Your task to perform on an android device: Do I have any events today? Image 0: 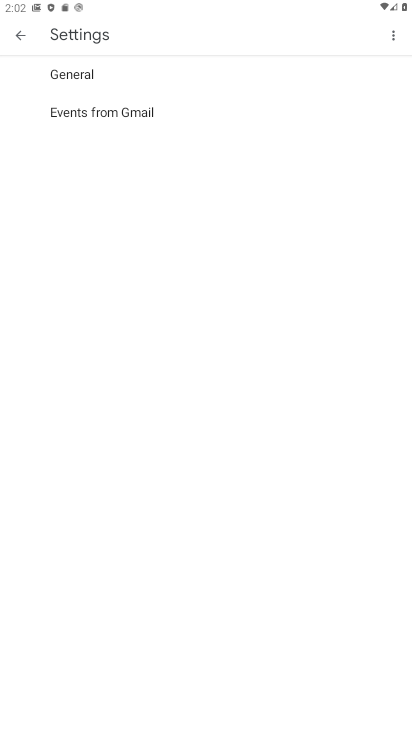
Step 0: press home button
Your task to perform on an android device: Do I have any events today? Image 1: 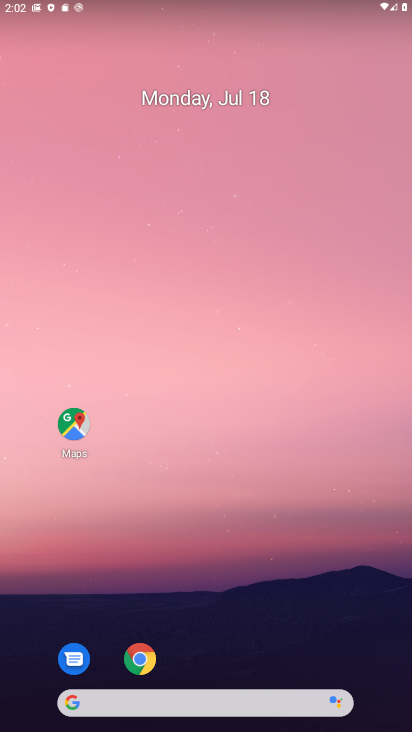
Step 1: drag from (194, 706) to (226, 183)
Your task to perform on an android device: Do I have any events today? Image 2: 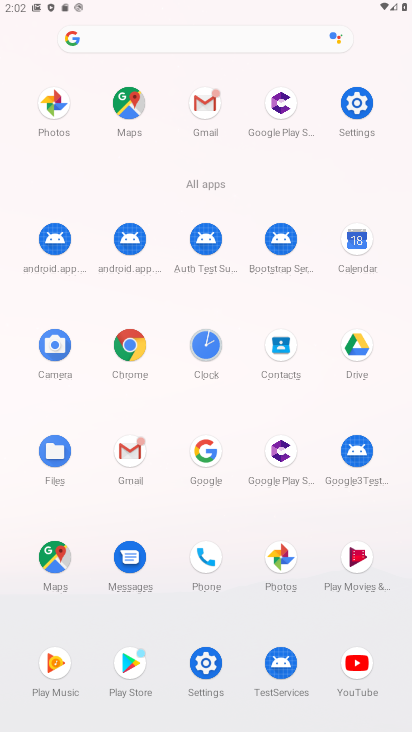
Step 2: click (343, 253)
Your task to perform on an android device: Do I have any events today? Image 3: 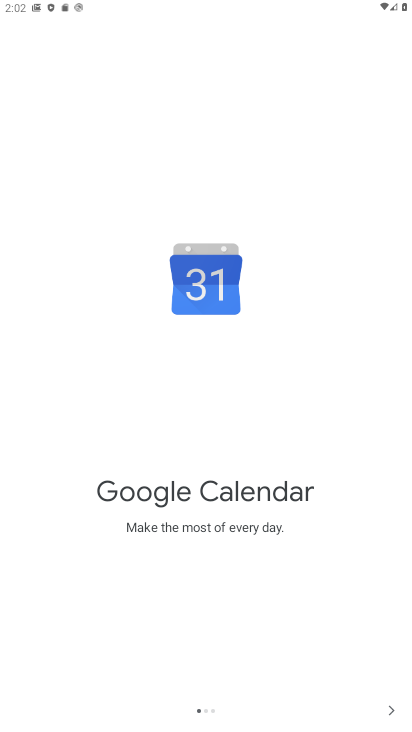
Step 3: click (393, 707)
Your task to perform on an android device: Do I have any events today? Image 4: 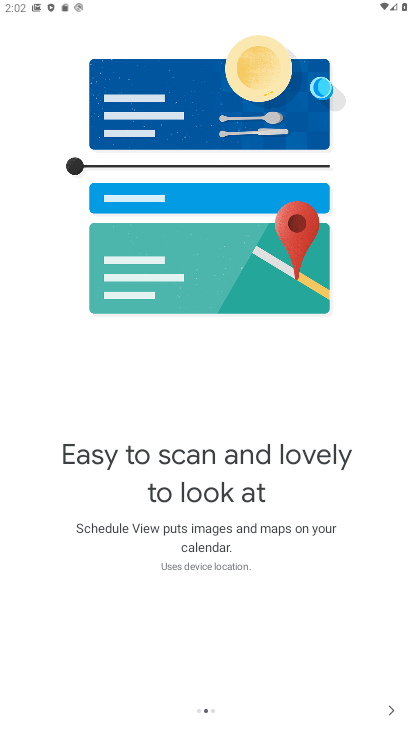
Step 4: click (393, 707)
Your task to perform on an android device: Do I have any events today? Image 5: 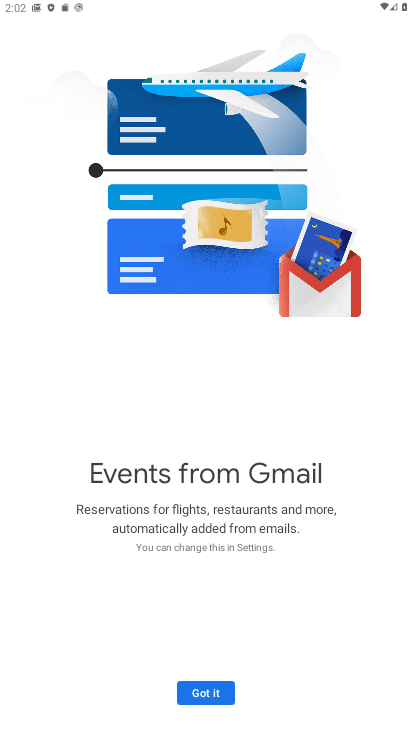
Step 5: click (213, 701)
Your task to perform on an android device: Do I have any events today? Image 6: 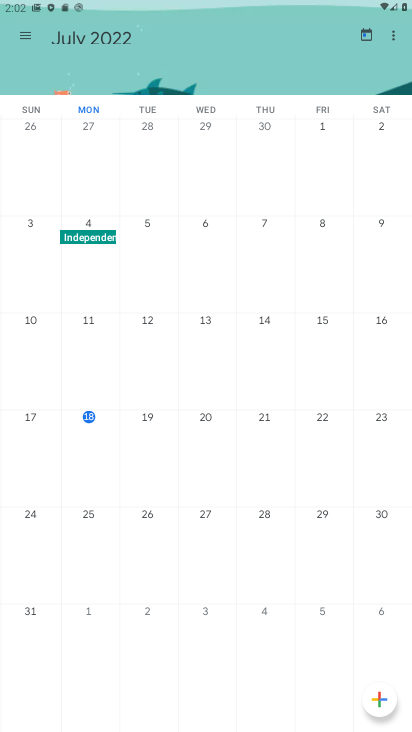
Step 6: click (25, 42)
Your task to perform on an android device: Do I have any events today? Image 7: 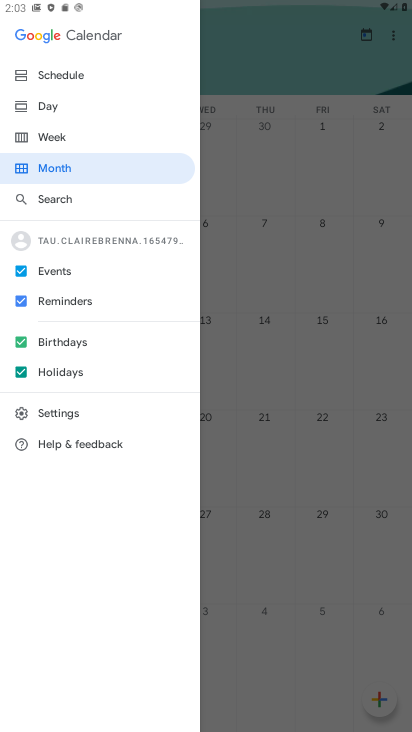
Step 7: click (46, 72)
Your task to perform on an android device: Do I have any events today? Image 8: 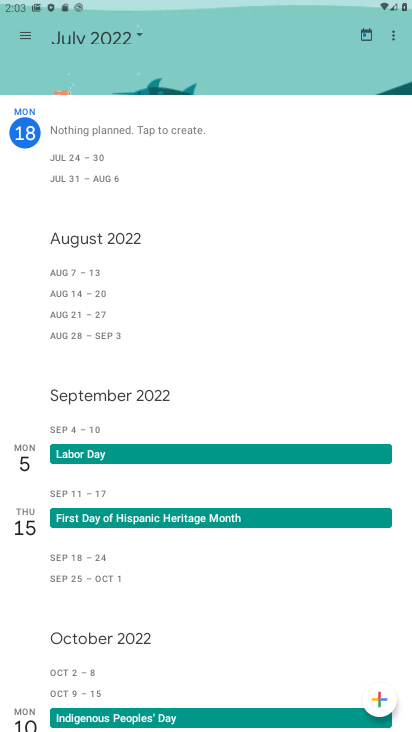
Step 8: task complete